Your task to perform on an android device: turn on translation in the chrome app Image 0: 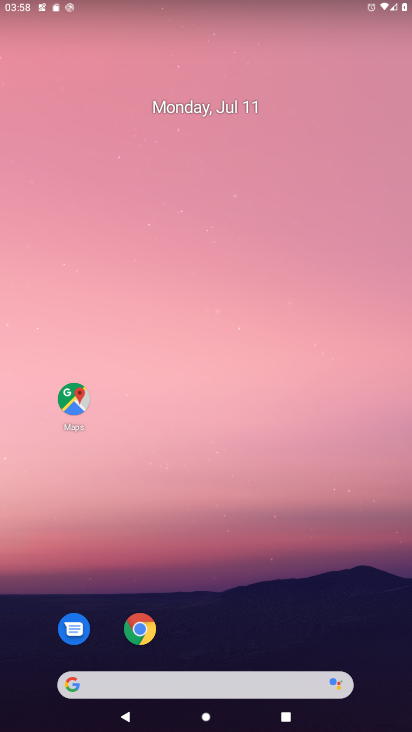
Step 0: click (145, 633)
Your task to perform on an android device: turn on translation in the chrome app Image 1: 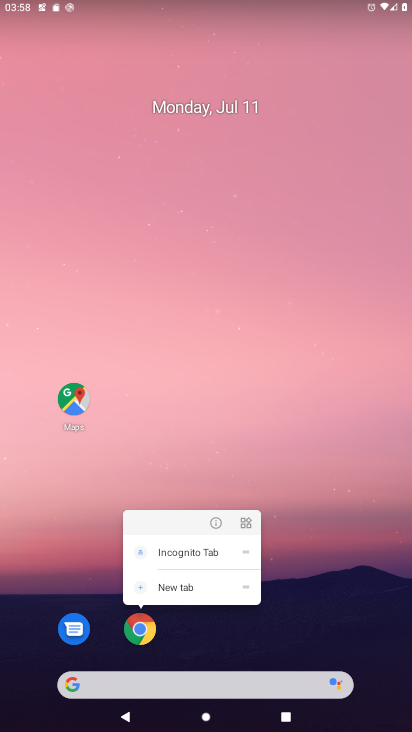
Step 1: click (138, 622)
Your task to perform on an android device: turn on translation in the chrome app Image 2: 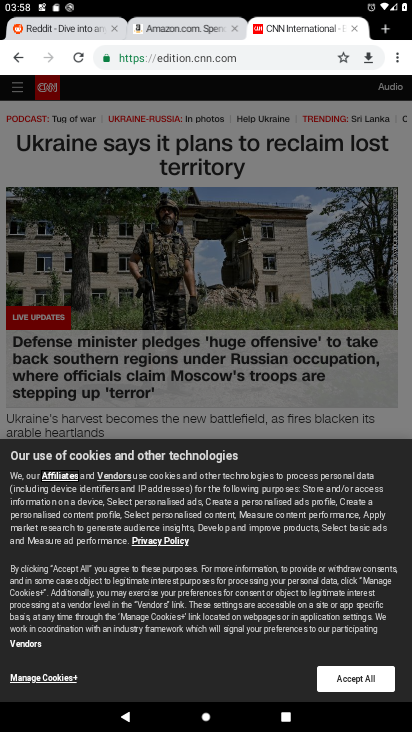
Step 2: drag from (395, 61) to (289, 354)
Your task to perform on an android device: turn on translation in the chrome app Image 3: 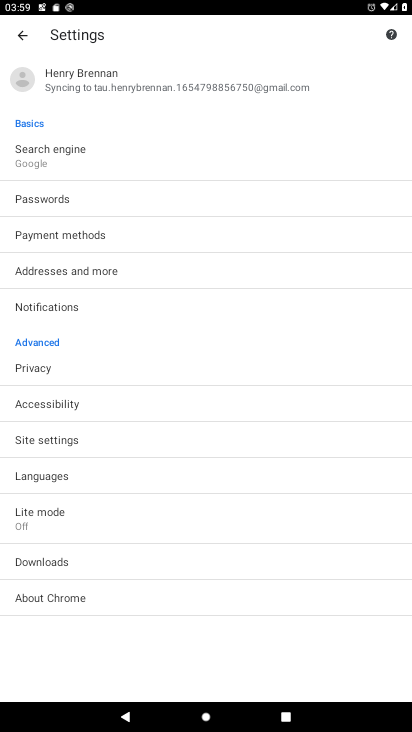
Step 3: click (52, 475)
Your task to perform on an android device: turn on translation in the chrome app Image 4: 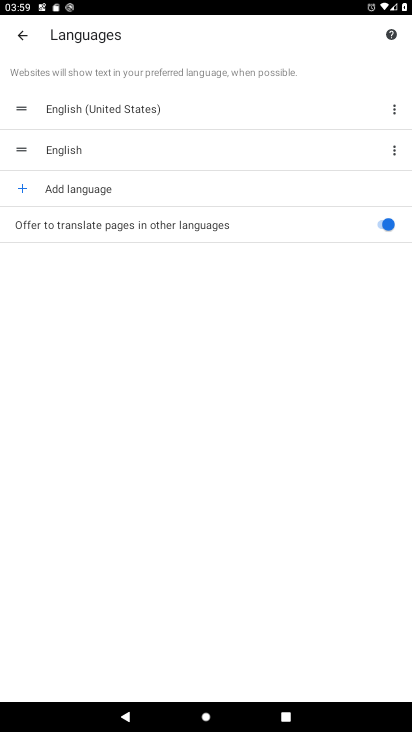
Step 4: task complete